Your task to perform on an android device: clear history in the chrome app Image 0: 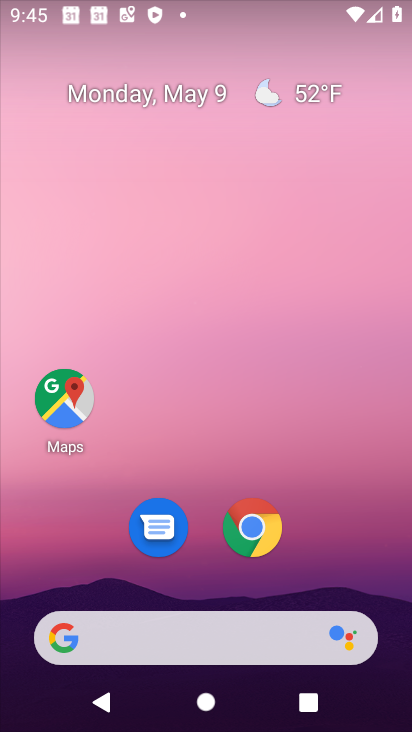
Step 0: click (253, 528)
Your task to perform on an android device: clear history in the chrome app Image 1: 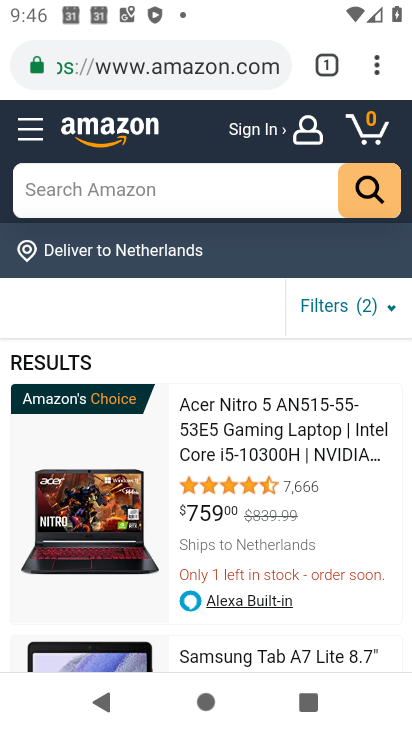
Step 1: click (373, 68)
Your task to perform on an android device: clear history in the chrome app Image 2: 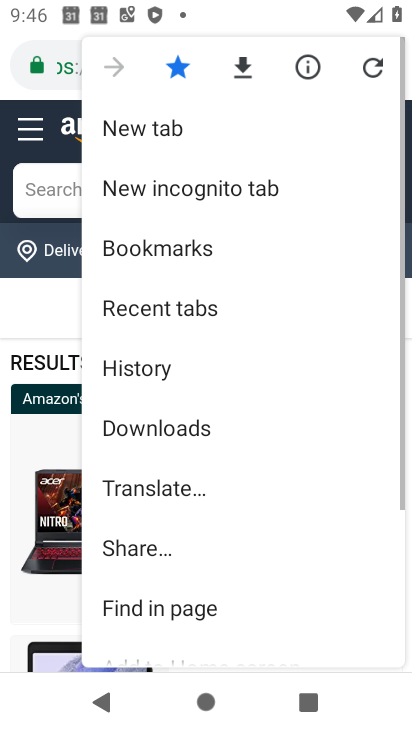
Step 2: drag from (198, 539) to (137, 103)
Your task to perform on an android device: clear history in the chrome app Image 3: 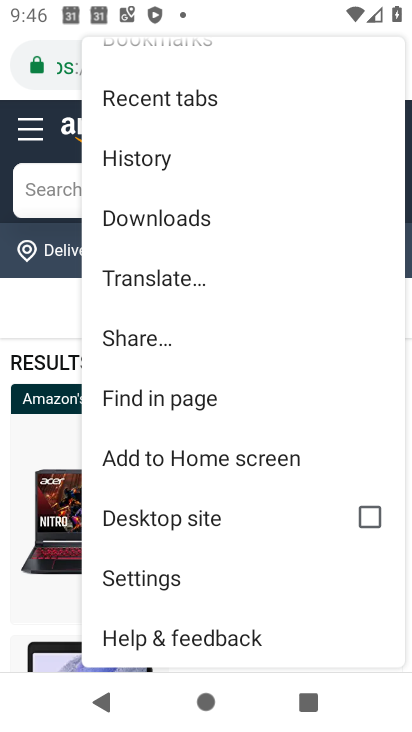
Step 3: click (147, 154)
Your task to perform on an android device: clear history in the chrome app Image 4: 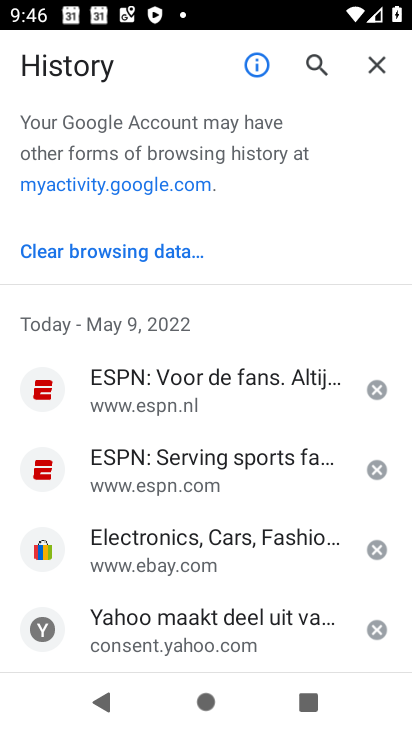
Step 4: click (137, 252)
Your task to perform on an android device: clear history in the chrome app Image 5: 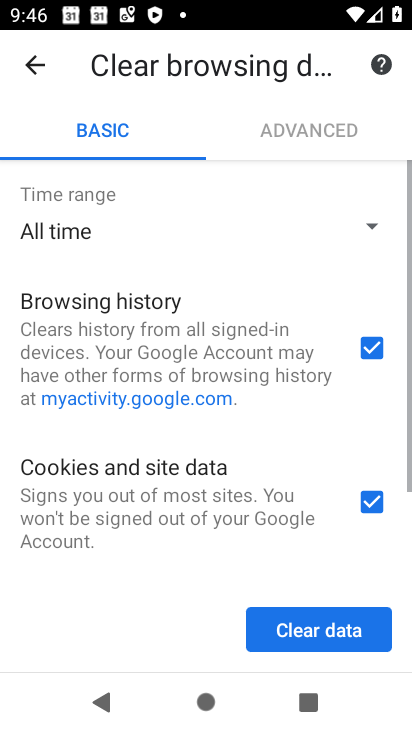
Step 5: click (354, 504)
Your task to perform on an android device: clear history in the chrome app Image 6: 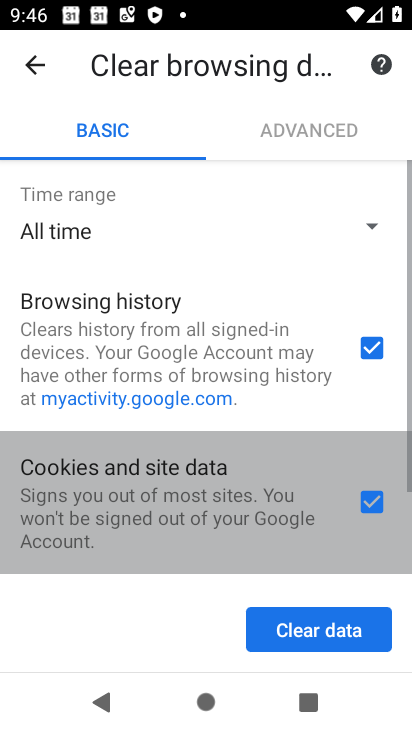
Step 6: drag from (330, 477) to (285, 196)
Your task to perform on an android device: clear history in the chrome app Image 7: 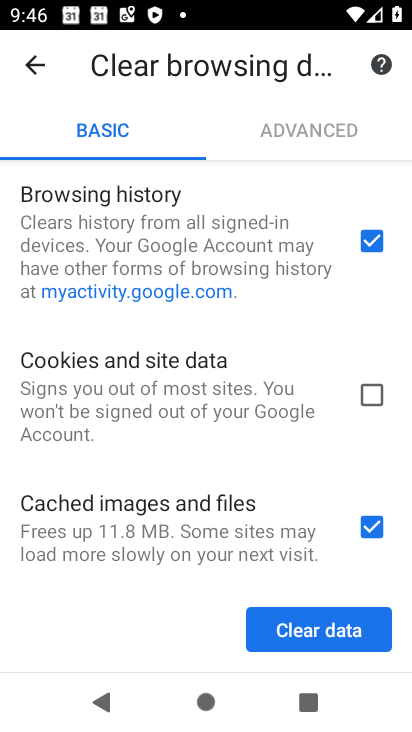
Step 7: click (377, 529)
Your task to perform on an android device: clear history in the chrome app Image 8: 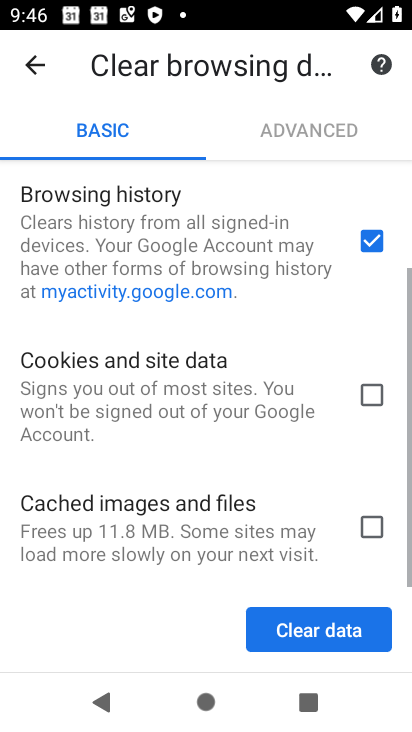
Step 8: click (317, 635)
Your task to perform on an android device: clear history in the chrome app Image 9: 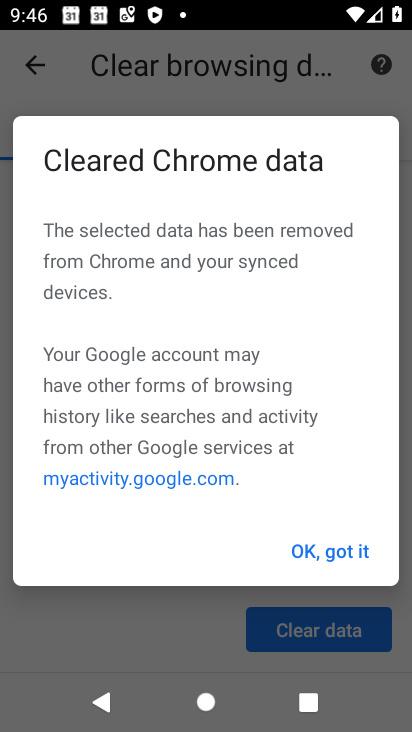
Step 9: click (327, 536)
Your task to perform on an android device: clear history in the chrome app Image 10: 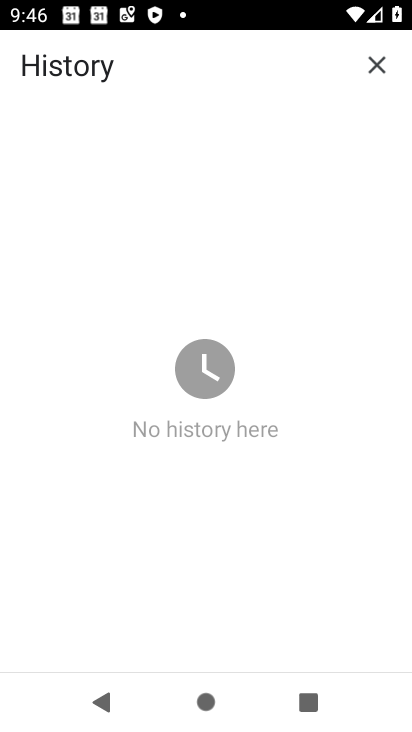
Step 10: task complete